Your task to perform on an android device: check the backup settings in the google photos Image 0: 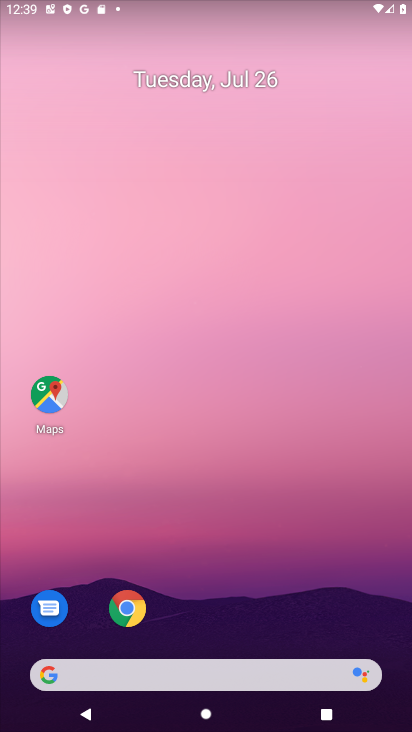
Step 0: drag from (188, 642) to (259, 48)
Your task to perform on an android device: check the backup settings in the google photos Image 1: 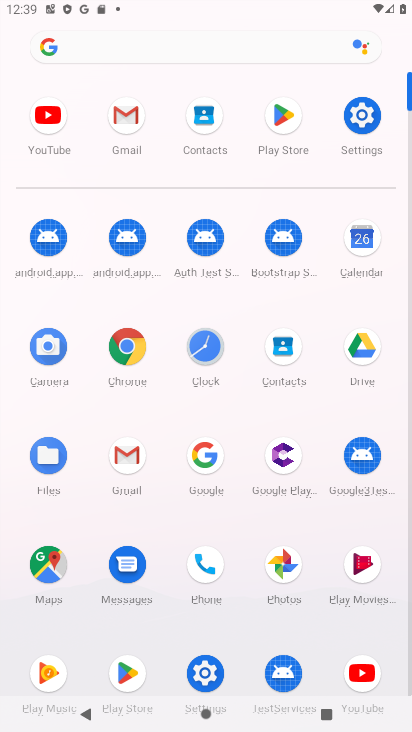
Step 1: click (370, 110)
Your task to perform on an android device: check the backup settings in the google photos Image 2: 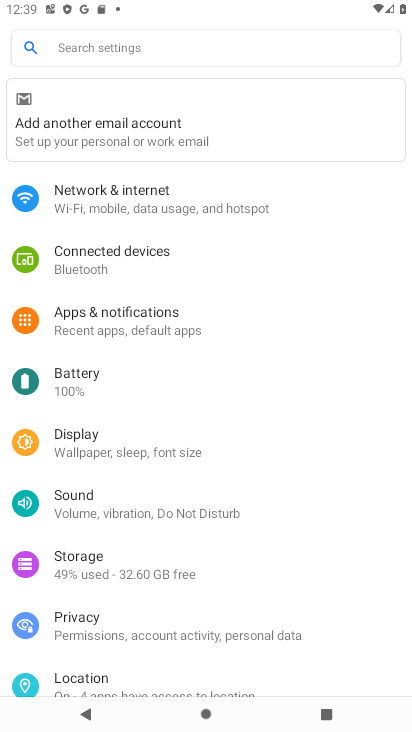
Step 2: press back button
Your task to perform on an android device: check the backup settings in the google photos Image 3: 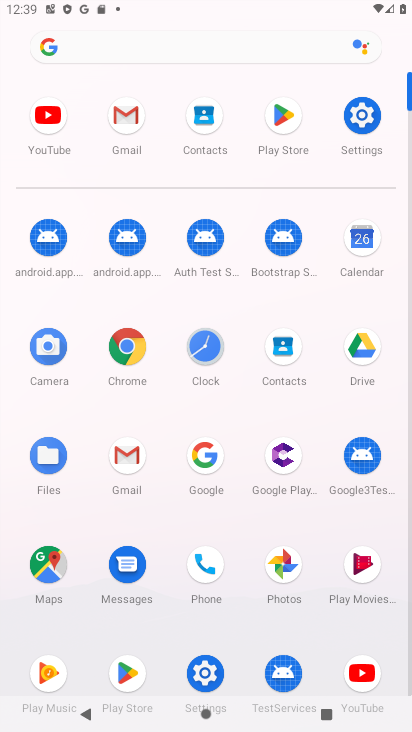
Step 3: click (278, 560)
Your task to perform on an android device: check the backup settings in the google photos Image 4: 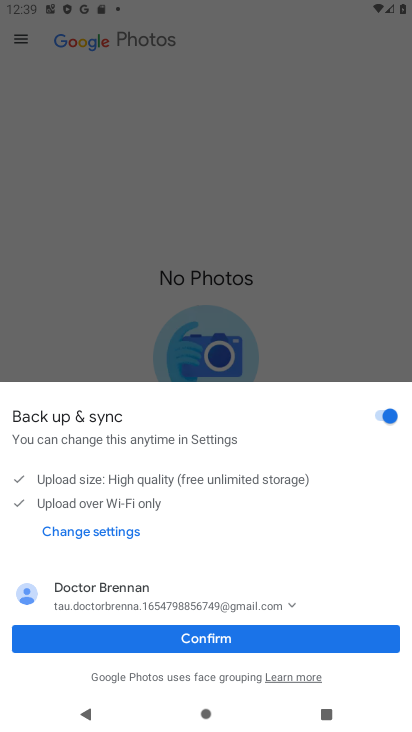
Step 4: click (109, 527)
Your task to perform on an android device: check the backup settings in the google photos Image 5: 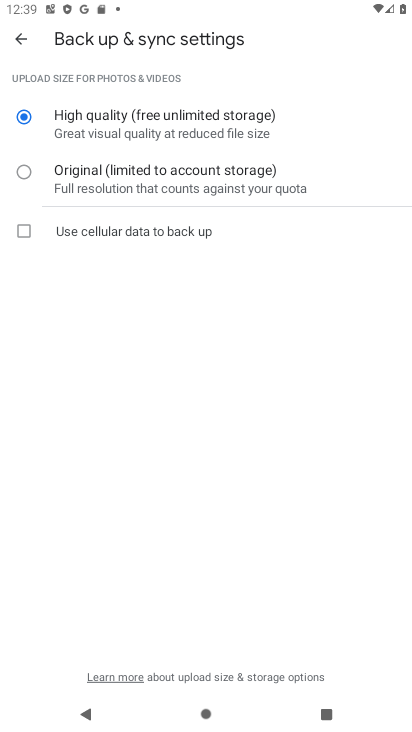
Step 5: click (177, 170)
Your task to perform on an android device: check the backup settings in the google photos Image 6: 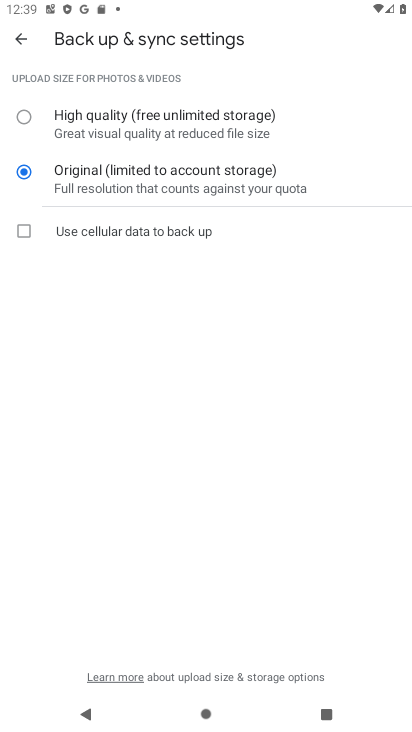
Step 6: task complete